Your task to perform on an android device: turn notification dots on Image 0: 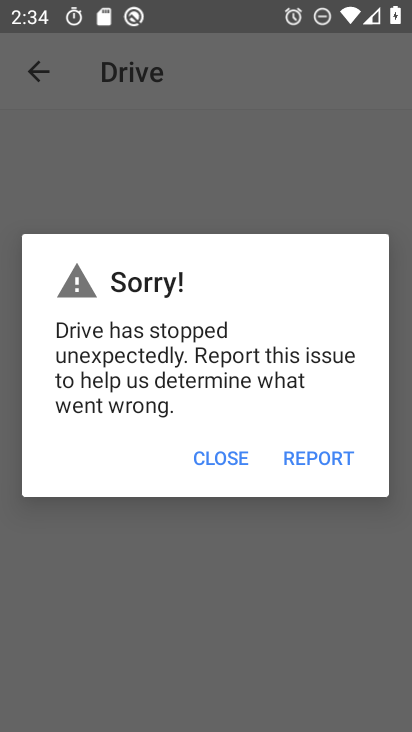
Step 0: press home button
Your task to perform on an android device: turn notification dots on Image 1: 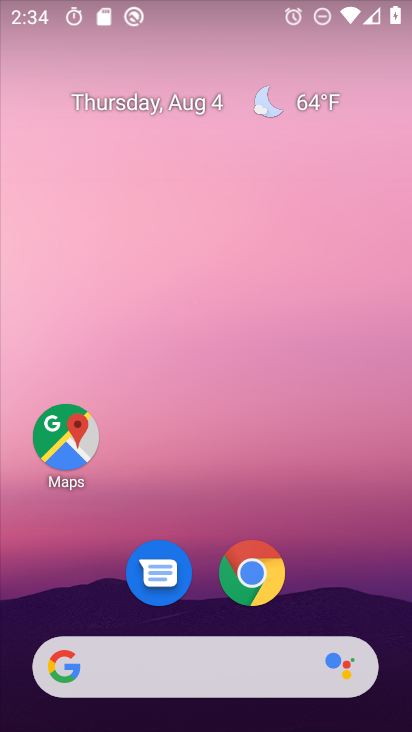
Step 1: drag from (324, 562) to (334, 66)
Your task to perform on an android device: turn notification dots on Image 2: 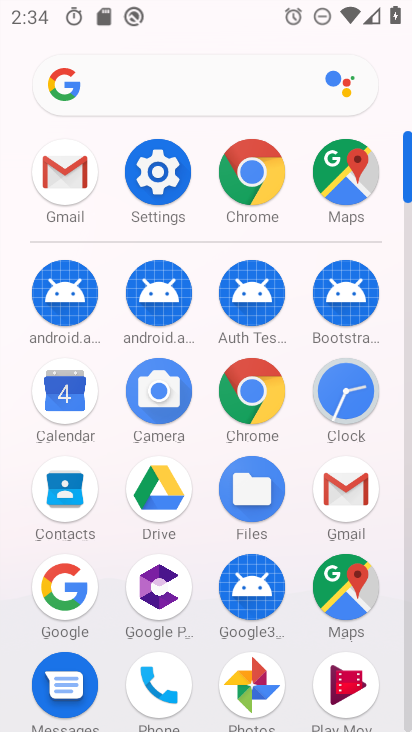
Step 2: click (176, 166)
Your task to perform on an android device: turn notification dots on Image 3: 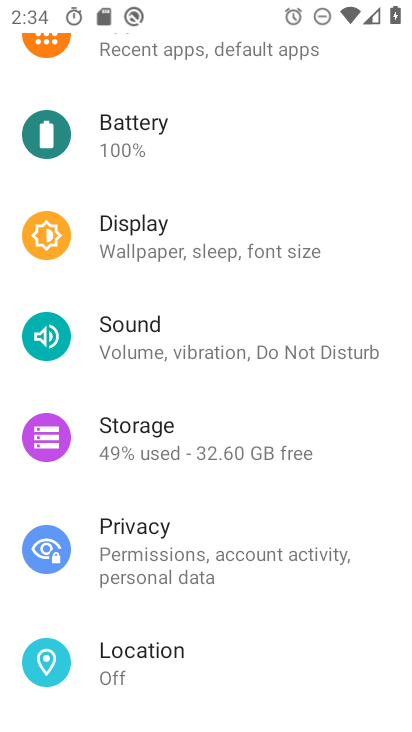
Step 3: drag from (296, 174) to (248, 548)
Your task to perform on an android device: turn notification dots on Image 4: 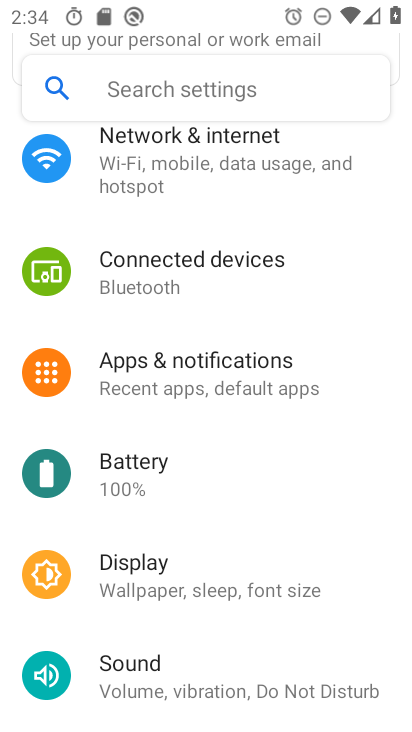
Step 4: click (190, 377)
Your task to perform on an android device: turn notification dots on Image 5: 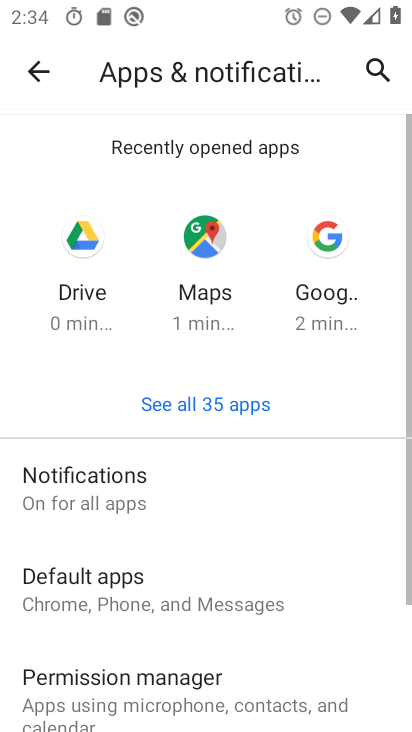
Step 5: click (125, 508)
Your task to perform on an android device: turn notification dots on Image 6: 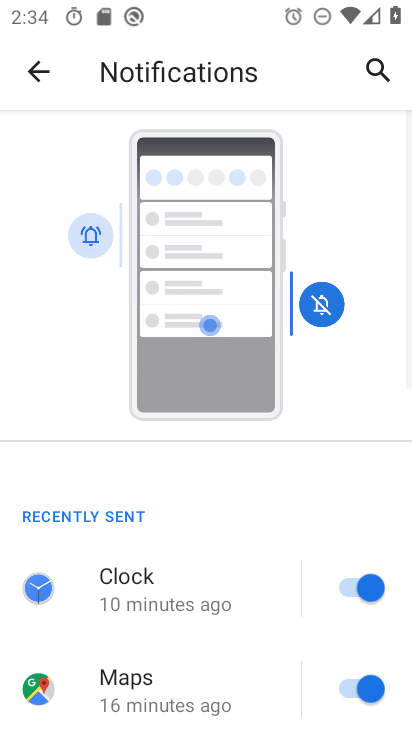
Step 6: drag from (254, 553) to (256, 97)
Your task to perform on an android device: turn notification dots on Image 7: 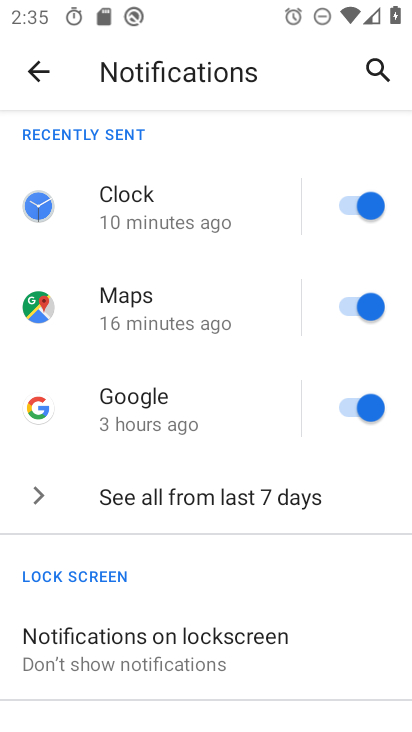
Step 7: drag from (240, 623) to (282, 159)
Your task to perform on an android device: turn notification dots on Image 8: 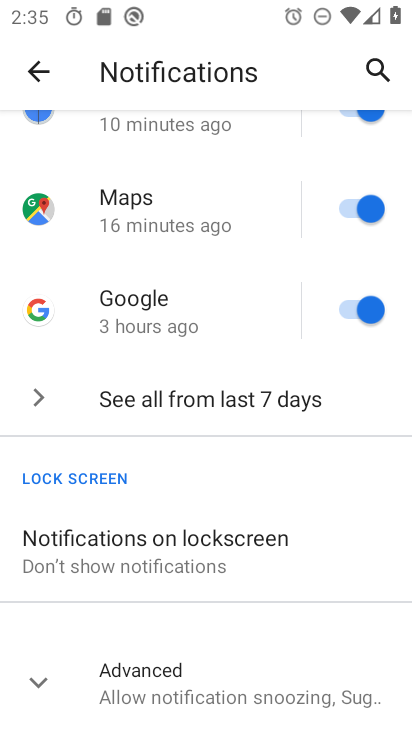
Step 8: click (143, 679)
Your task to perform on an android device: turn notification dots on Image 9: 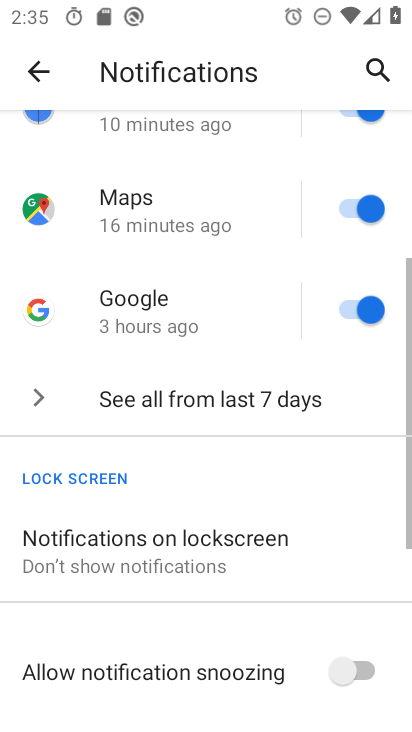
Step 9: drag from (194, 622) to (252, 264)
Your task to perform on an android device: turn notification dots on Image 10: 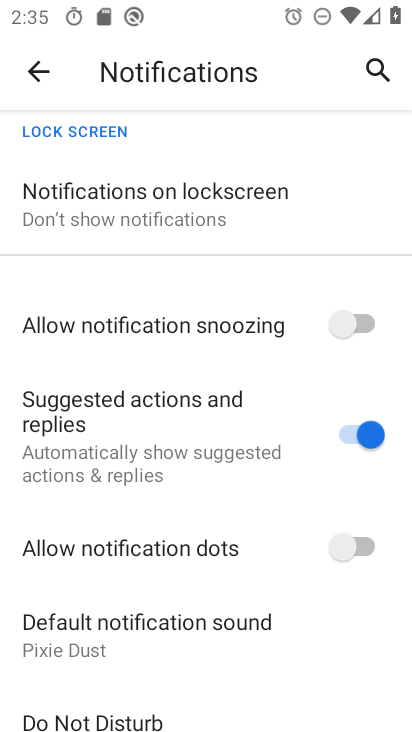
Step 10: click (343, 551)
Your task to perform on an android device: turn notification dots on Image 11: 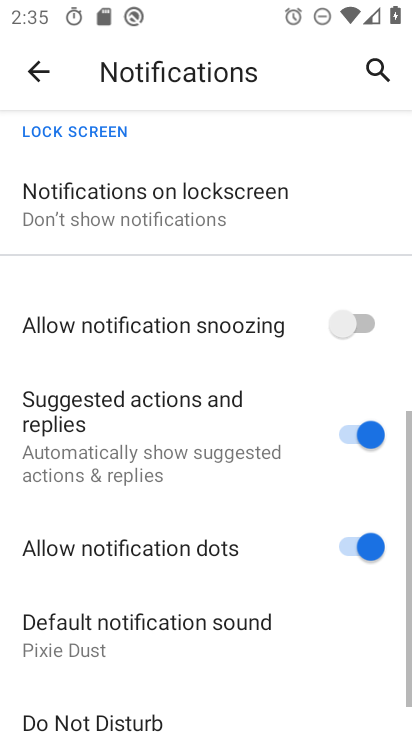
Step 11: task complete